Your task to perform on an android device: toggle translation in the chrome app Image 0: 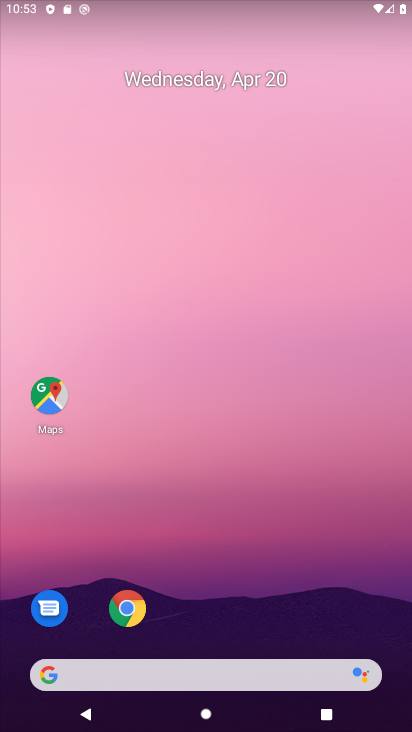
Step 0: click (114, 601)
Your task to perform on an android device: toggle translation in the chrome app Image 1: 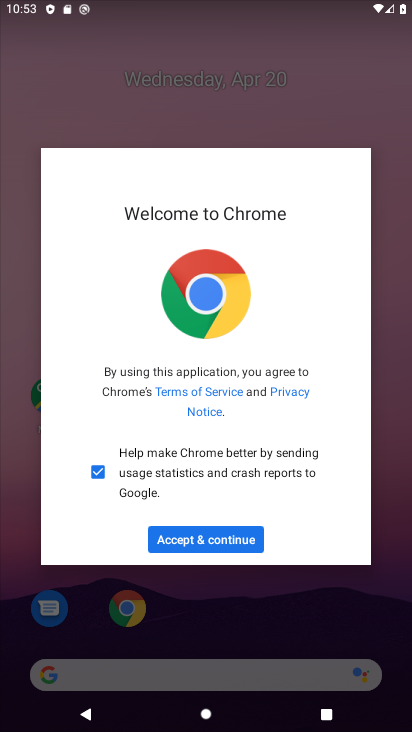
Step 1: click (203, 542)
Your task to perform on an android device: toggle translation in the chrome app Image 2: 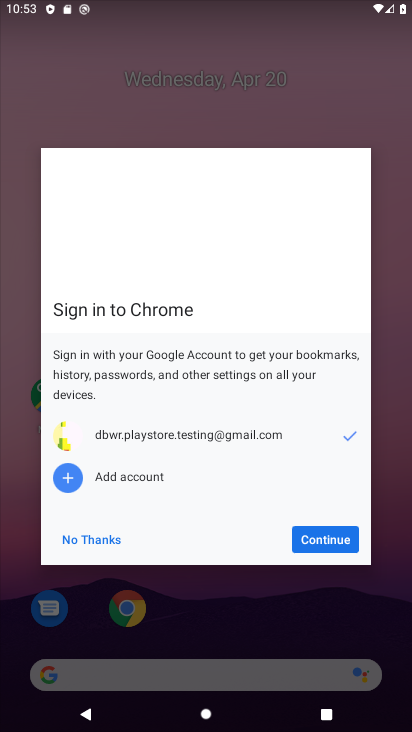
Step 2: click (321, 542)
Your task to perform on an android device: toggle translation in the chrome app Image 3: 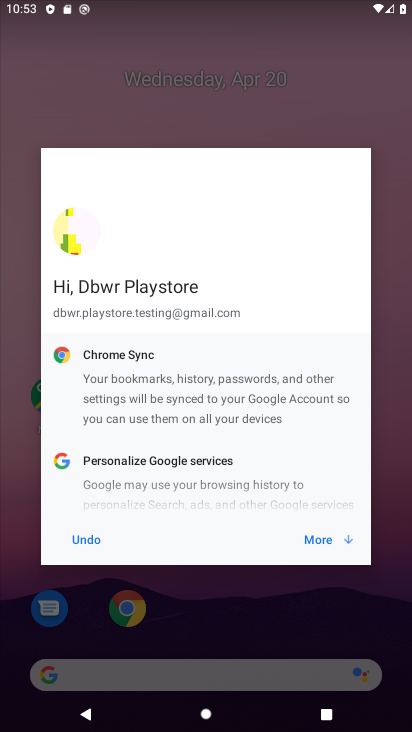
Step 3: click (321, 542)
Your task to perform on an android device: toggle translation in the chrome app Image 4: 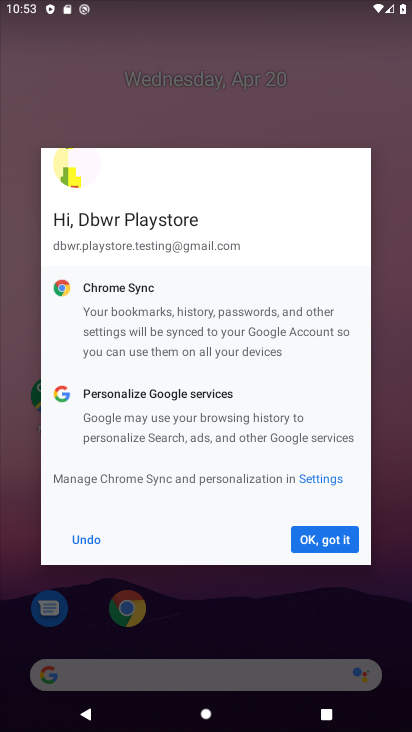
Step 4: click (321, 542)
Your task to perform on an android device: toggle translation in the chrome app Image 5: 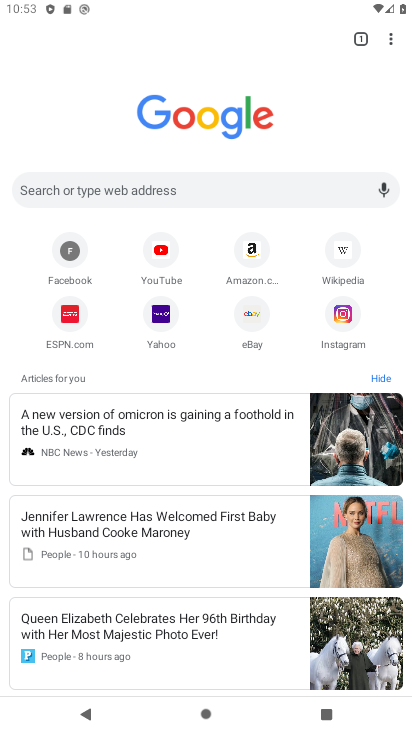
Step 5: press home button
Your task to perform on an android device: toggle translation in the chrome app Image 6: 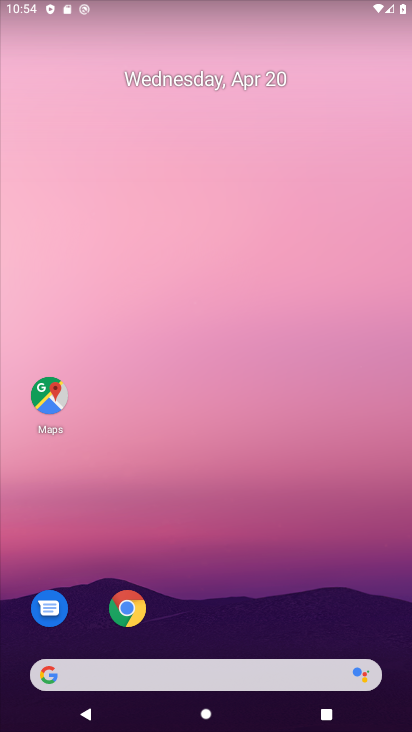
Step 6: click (276, 546)
Your task to perform on an android device: toggle translation in the chrome app Image 7: 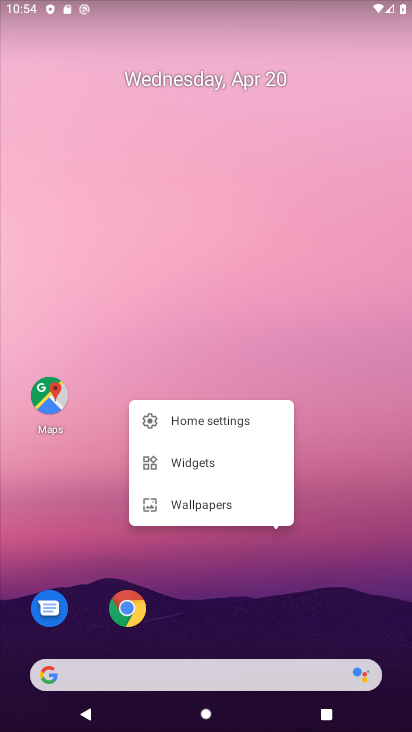
Step 7: click (125, 615)
Your task to perform on an android device: toggle translation in the chrome app Image 8: 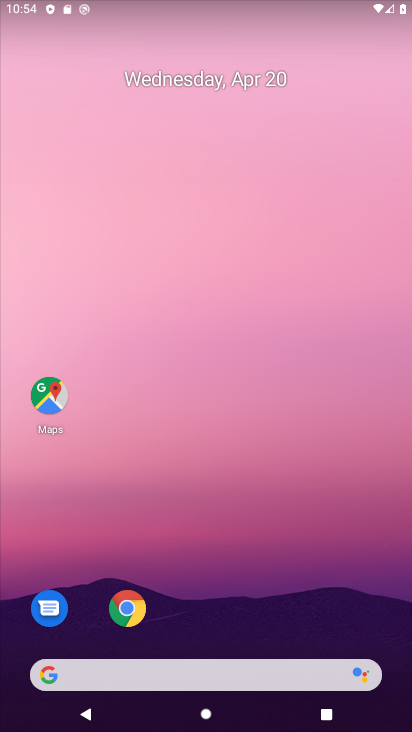
Step 8: click (129, 614)
Your task to perform on an android device: toggle translation in the chrome app Image 9: 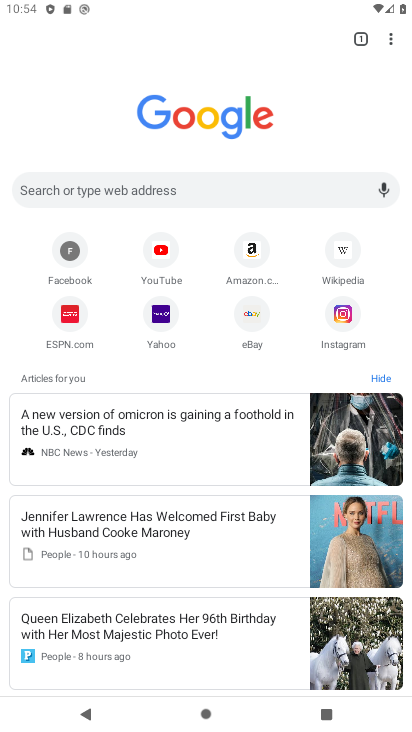
Step 9: drag from (385, 46) to (299, 337)
Your task to perform on an android device: toggle translation in the chrome app Image 10: 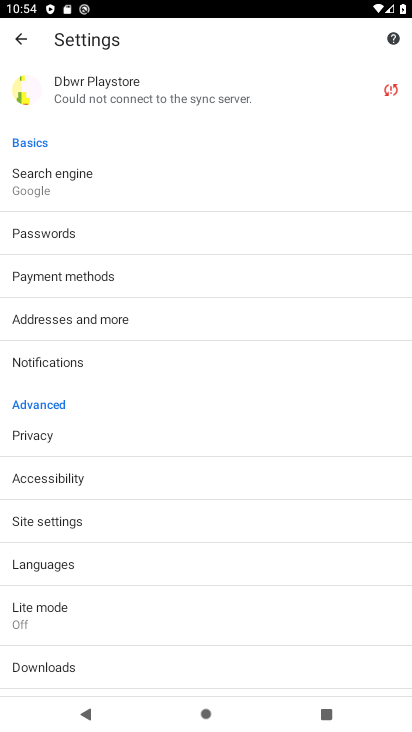
Step 10: click (65, 569)
Your task to perform on an android device: toggle translation in the chrome app Image 11: 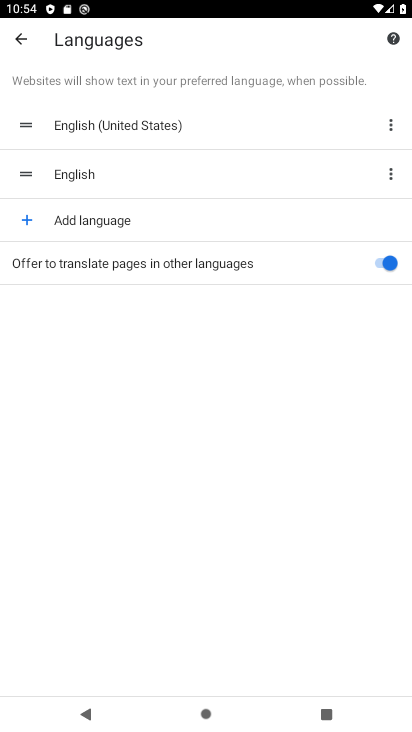
Step 11: click (393, 260)
Your task to perform on an android device: toggle translation in the chrome app Image 12: 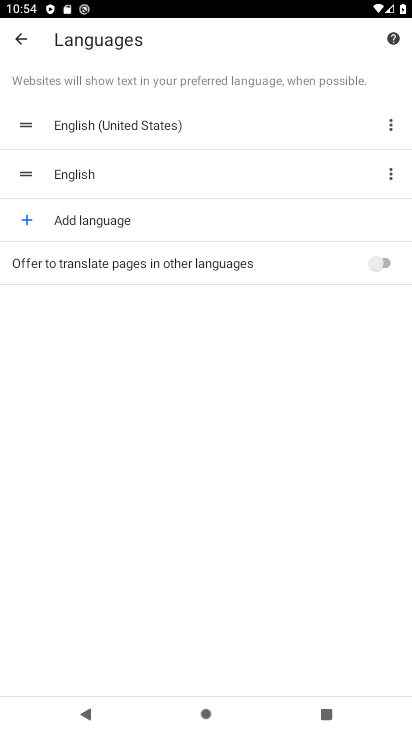
Step 12: click (385, 263)
Your task to perform on an android device: toggle translation in the chrome app Image 13: 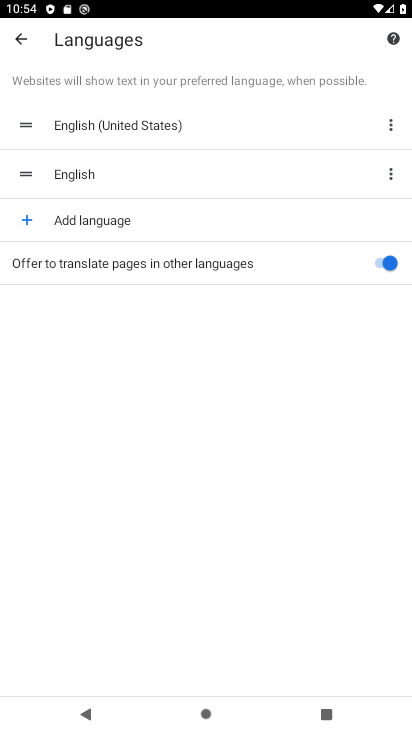
Step 13: click (385, 263)
Your task to perform on an android device: toggle translation in the chrome app Image 14: 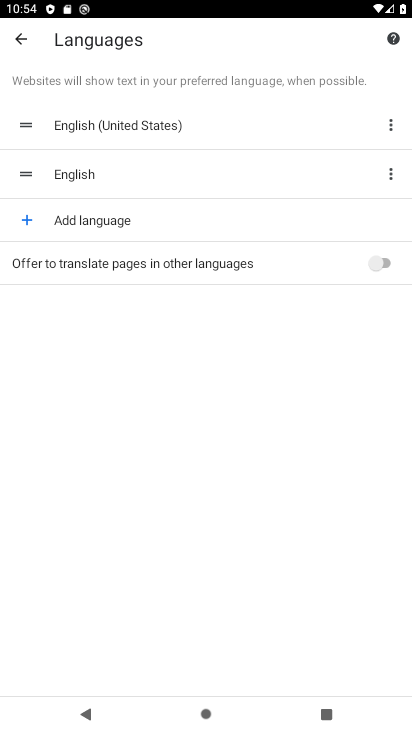
Step 14: task complete